Your task to perform on an android device: Open Amazon Image 0: 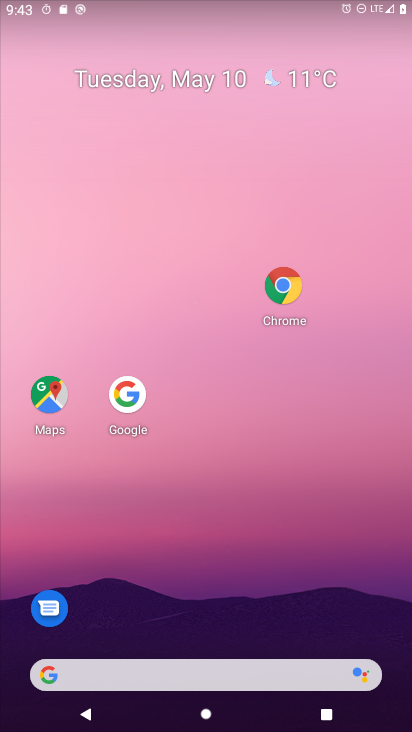
Step 0: click (290, 292)
Your task to perform on an android device: Open Amazon Image 1: 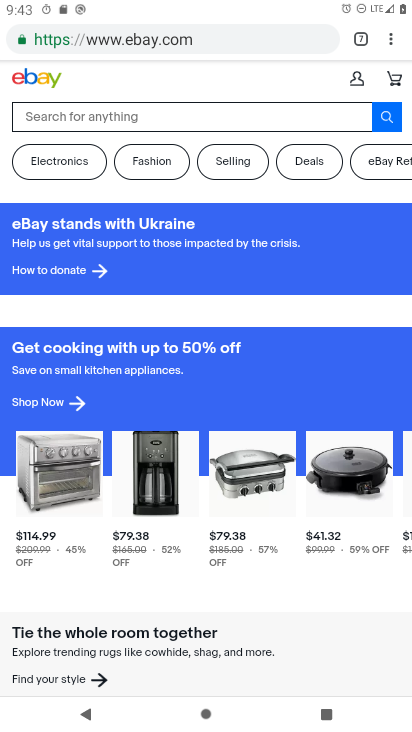
Step 1: drag from (389, 41) to (328, 82)
Your task to perform on an android device: Open Amazon Image 2: 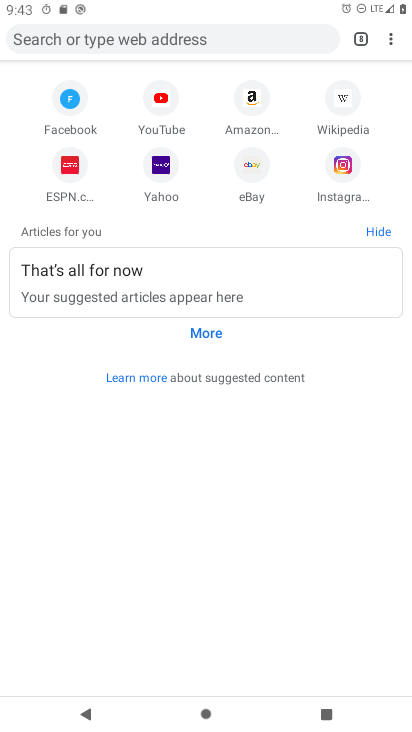
Step 2: click (249, 97)
Your task to perform on an android device: Open Amazon Image 3: 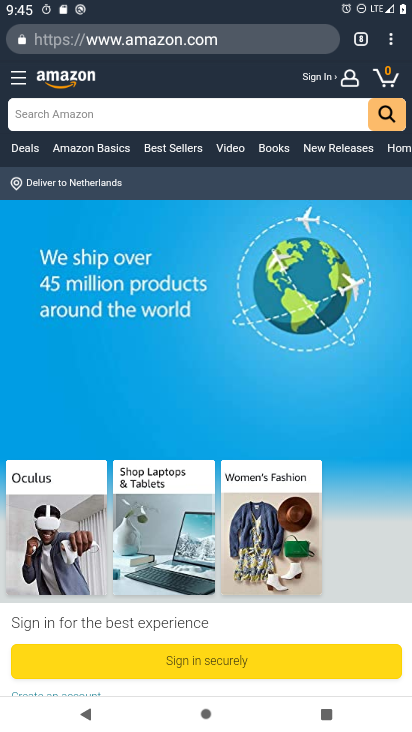
Step 3: task complete